Your task to perform on an android device: Open Yahoo.com Image 0: 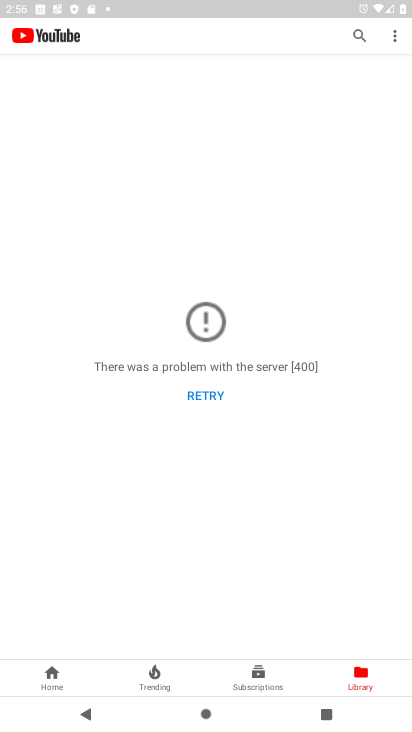
Step 0: press home button
Your task to perform on an android device: Open Yahoo.com Image 1: 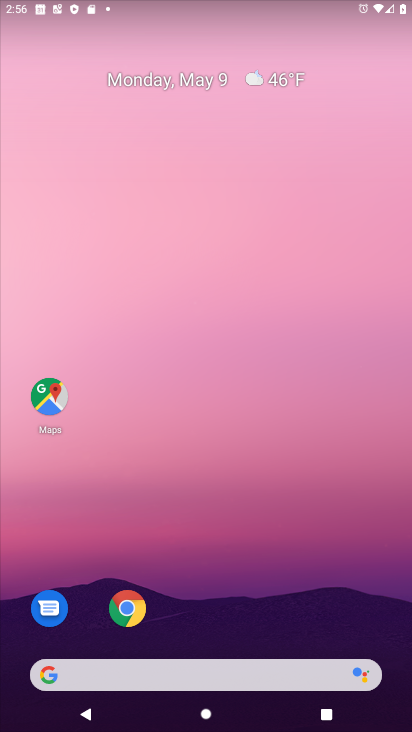
Step 1: click (122, 601)
Your task to perform on an android device: Open Yahoo.com Image 2: 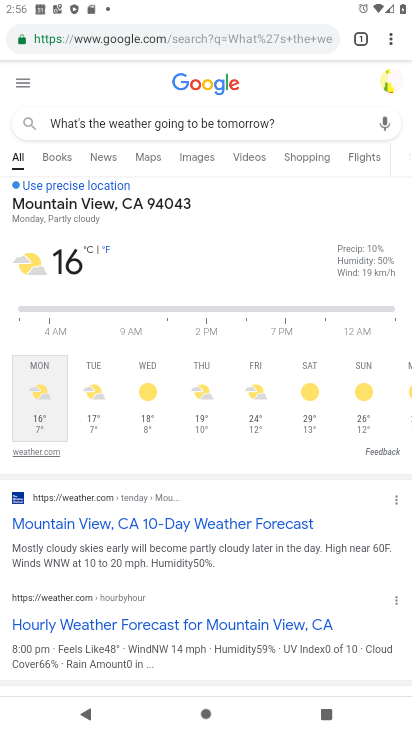
Step 2: click (128, 40)
Your task to perform on an android device: Open Yahoo.com Image 3: 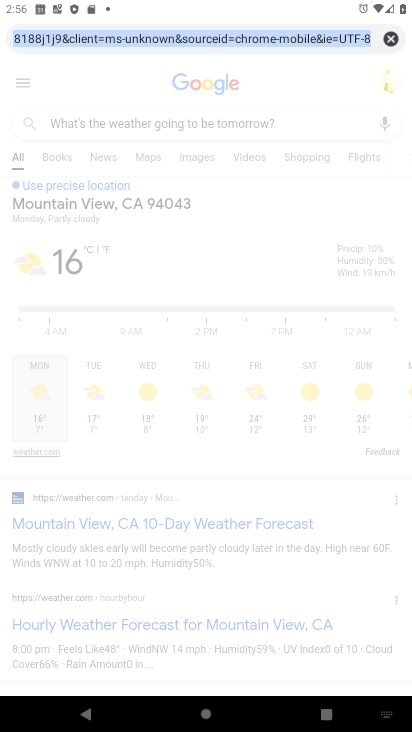
Step 3: type "Yahoo.com"
Your task to perform on an android device: Open Yahoo.com Image 4: 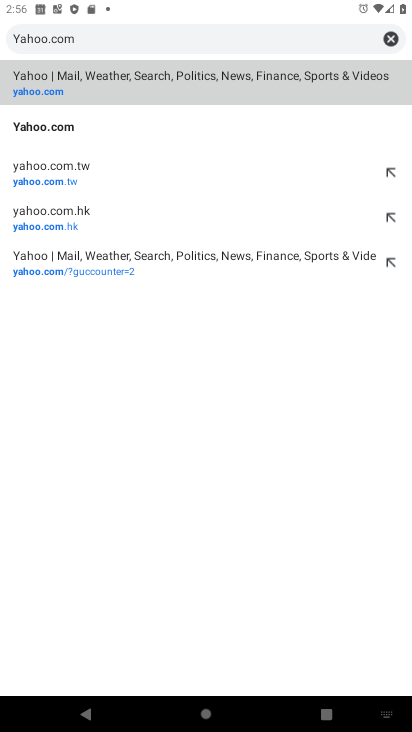
Step 4: click (63, 141)
Your task to perform on an android device: Open Yahoo.com Image 5: 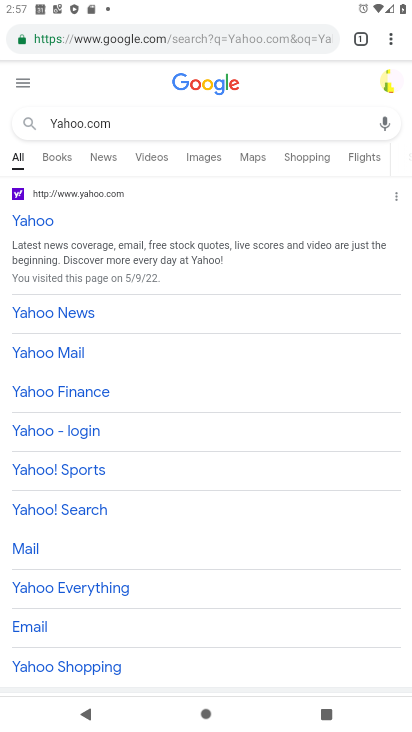
Step 5: task complete